Your task to perform on an android device: turn off javascript in the chrome app Image 0: 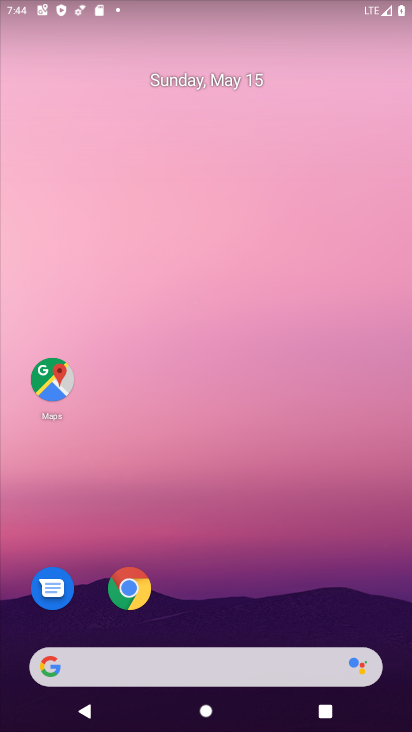
Step 0: drag from (389, 617) to (245, 86)
Your task to perform on an android device: turn off javascript in the chrome app Image 1: 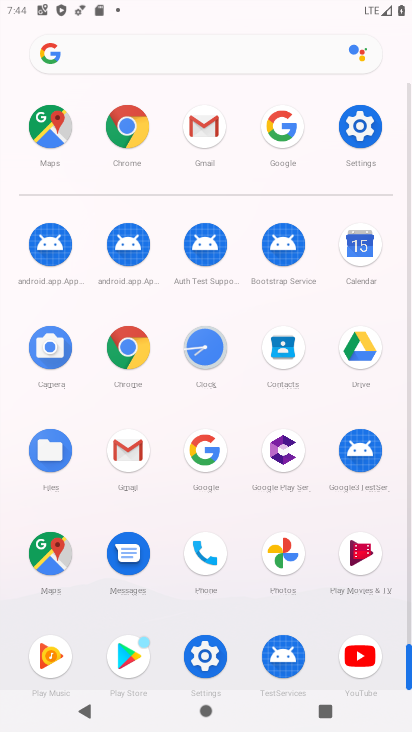
Step 1: click (134, 132)
Your task to perform on an android device: turn off javascript in the chrome app Image 2: 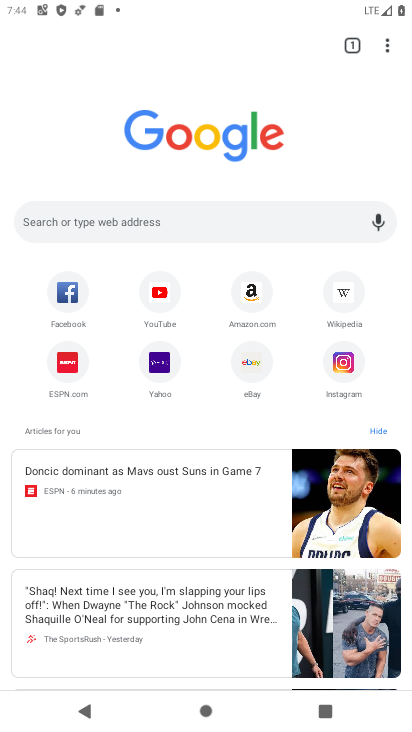
Step 2: click (389, 40)
Your task to perform on an android device: turn off javascript in the chrome app Image 3: 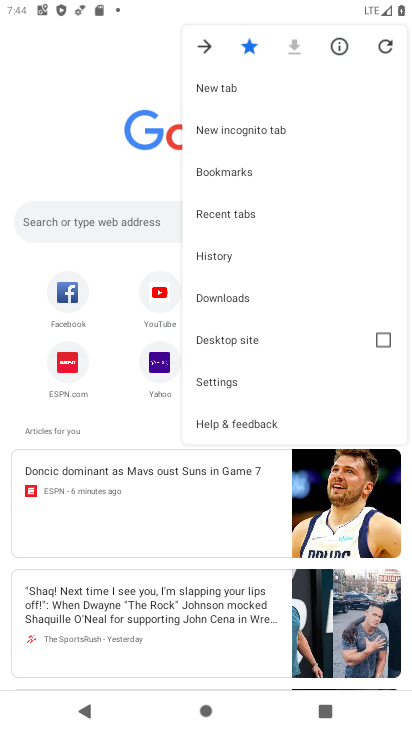
Step 3: click (245, 383)
Your task to perform on an android device: turn off javascript in the chrome app Image 4: 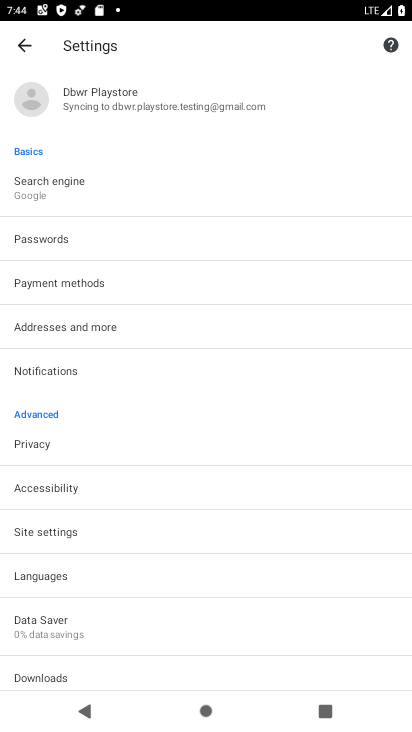
Step 4: click (81, 527)
Your task to perform on an android device: turn off javascript in the chrome app Image 5: 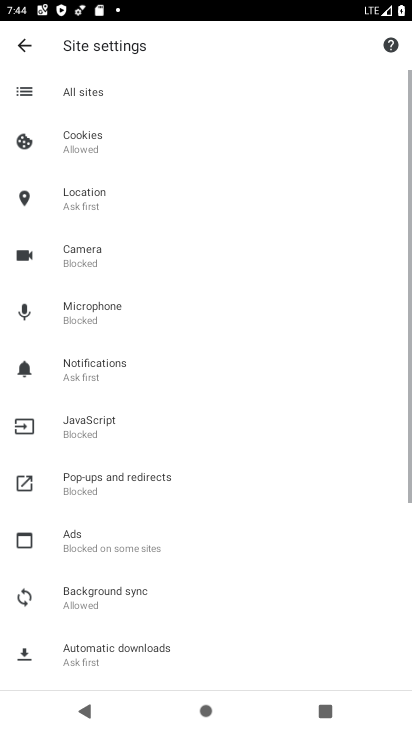
Step 5: click (112, 424)
Your task to perform on an android device: turn off javascript in the chrome app Image 6: 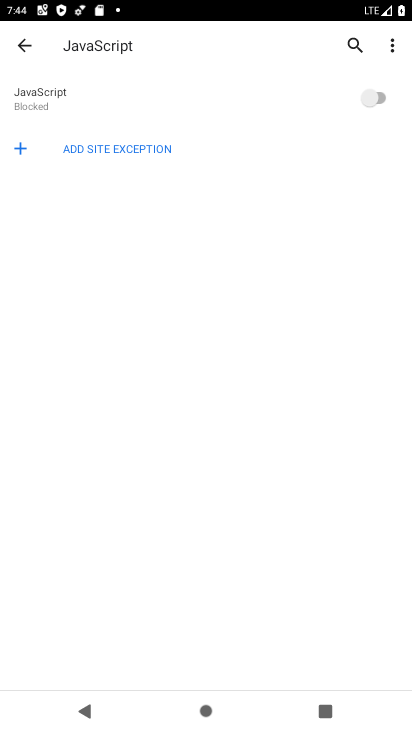
Step 6: task complete